Your task to perform on an android device: set an alarm Image 0: 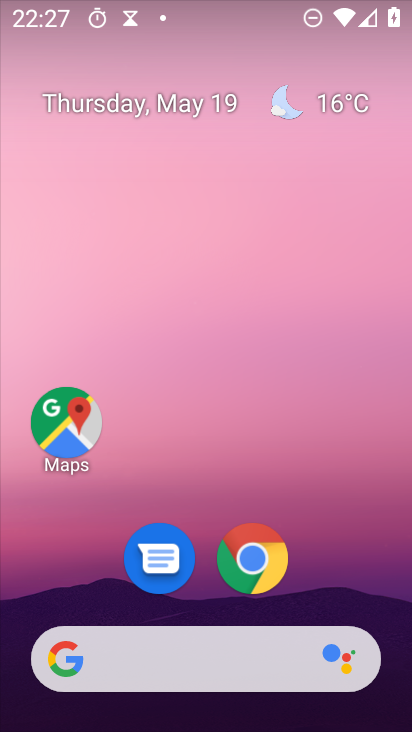
Step 0: drag from (205, 718) to (203, 194)
Your task to perform on an android device: set an alarm Image 1: 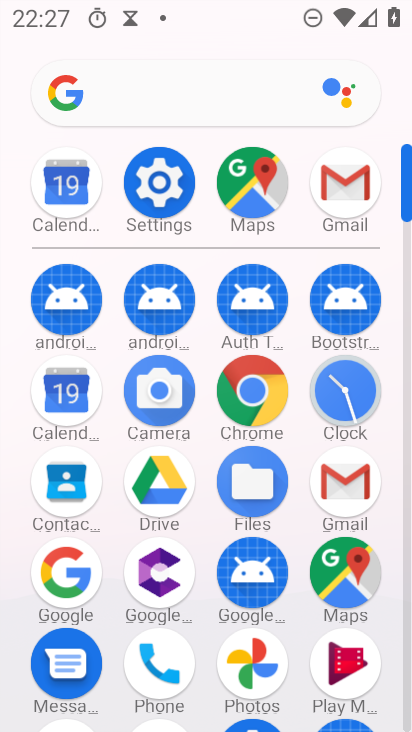
Step 1: click (349, 392)
Your task to perform on an android device: set an alarm Image 2: 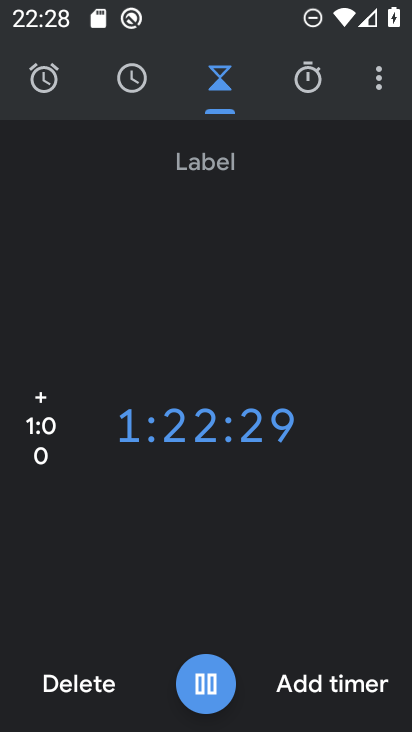
Step 2: click (42, 77)
Your task to perform on an android device: set an alarm Image 3: 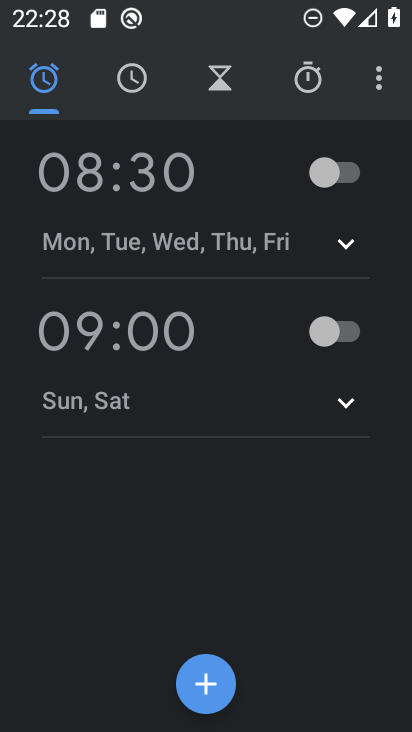
Step 3: click (213, 680)
Your task to perform on an android device: set an alarm Image 4: 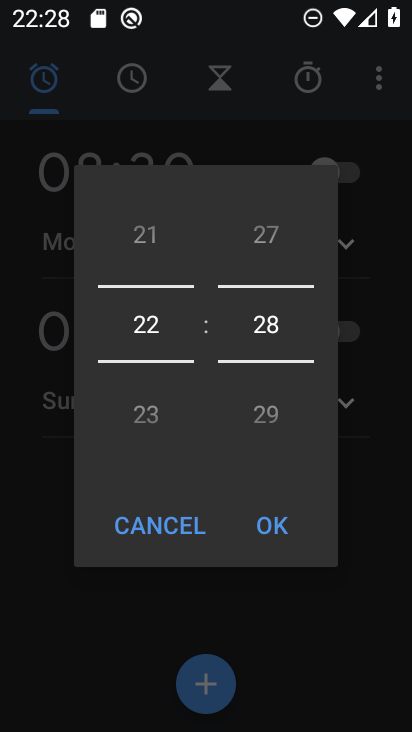
Step 4: drag from (149, 419) to (149, 114)
Your task to perform on an android device: set an alarm Image 5: 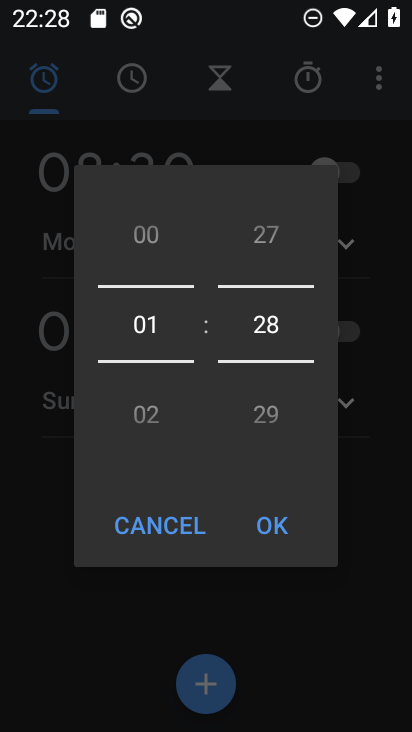
Step 5: drag from (272, 420) to (272, 146)
Your task to perform on an android device: set an alarm Image 6: 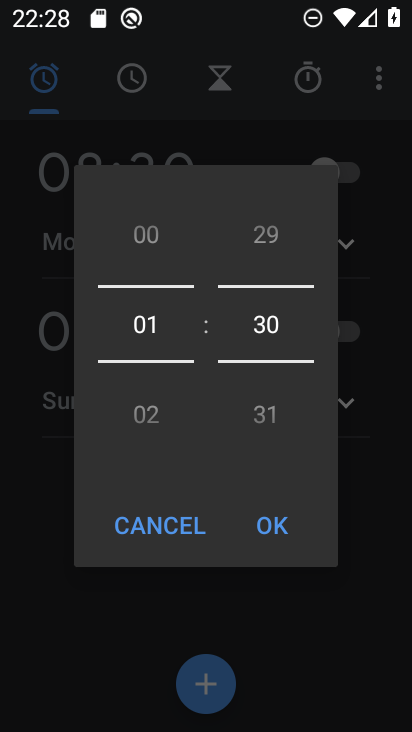
Step 6: click (264, 525)
Your task to perform on an android device: set an alarm Image 7: 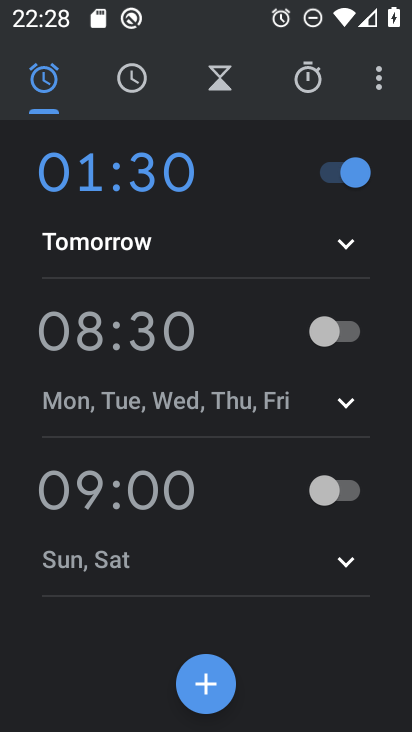
Step 7: task complete